Your task to perform on an android device: Go to Yahoo.com Image 0: 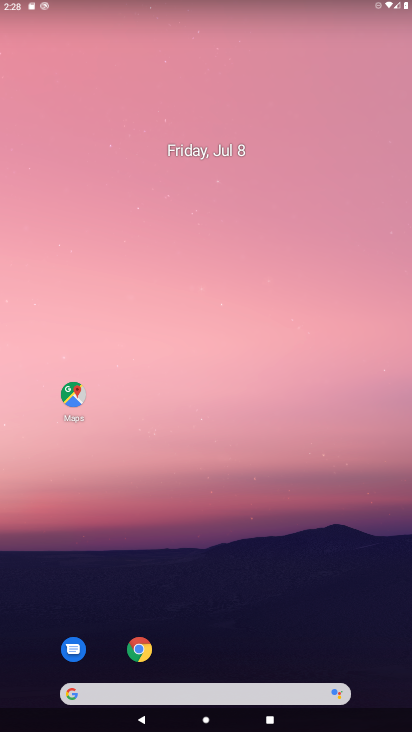
Step 0: click (136, 652)
Your task to perform on an android device: Go to Yahoo.com Image 1: 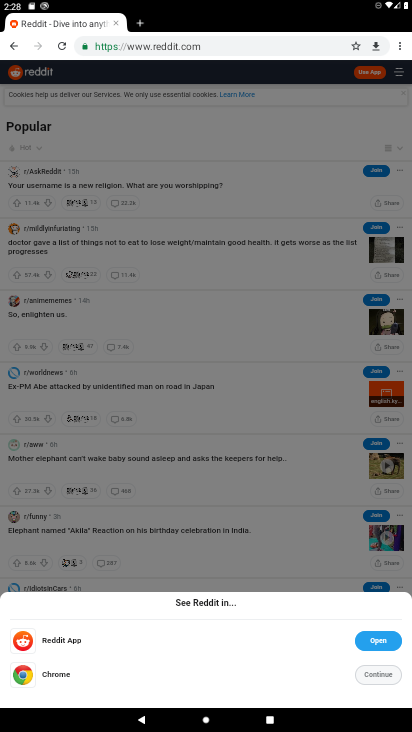
Step 1: click (216, 45)
Your task to perform on an android device: Go to Yahoo.com Image 2: 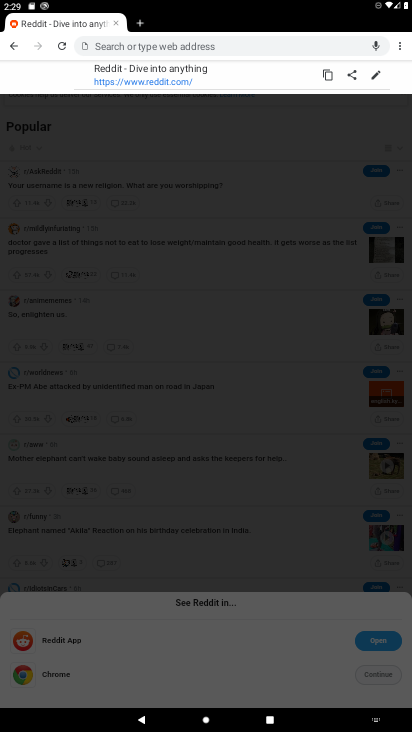
Step 2: type "yahoo.com"
Your task to perform on an android device: Go to Yahoo.com Image 3: 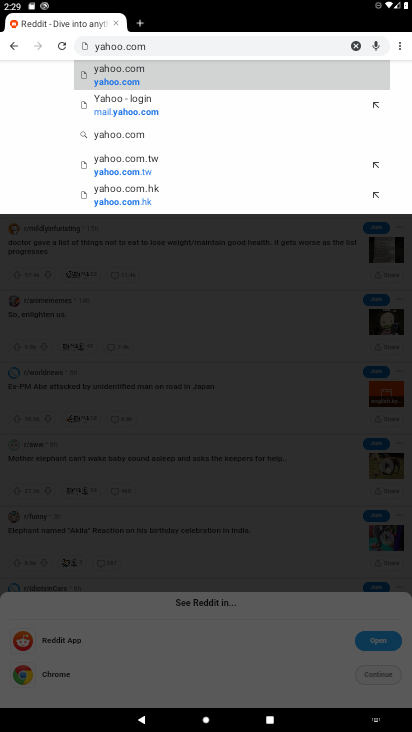
Step 3: click (120, 73)
Your task to perform on an android device: Go to Yahoo.com Image 4: 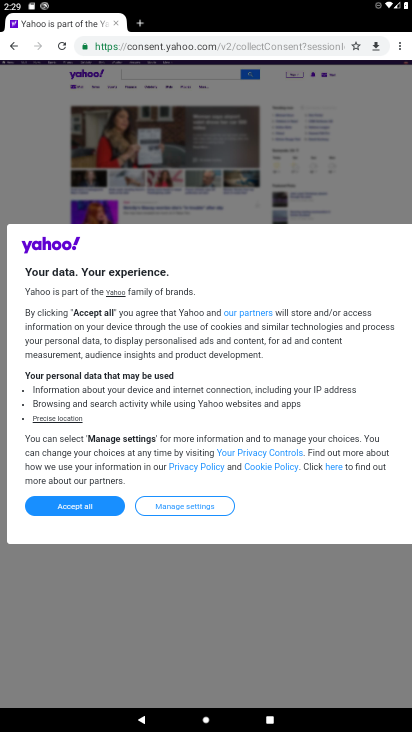
Step 4: click (73, 509)
Your task to perform on an android device: Go to Yahoo.com Image 5: 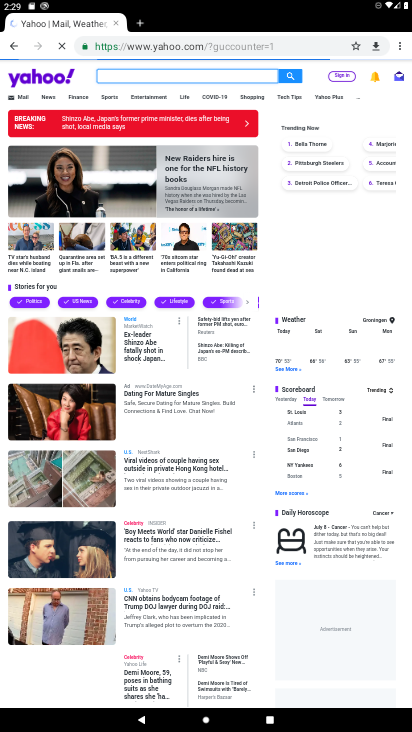
Step 5: task complete